Your task to perform on an android device: Open the stopwatch Image 0: 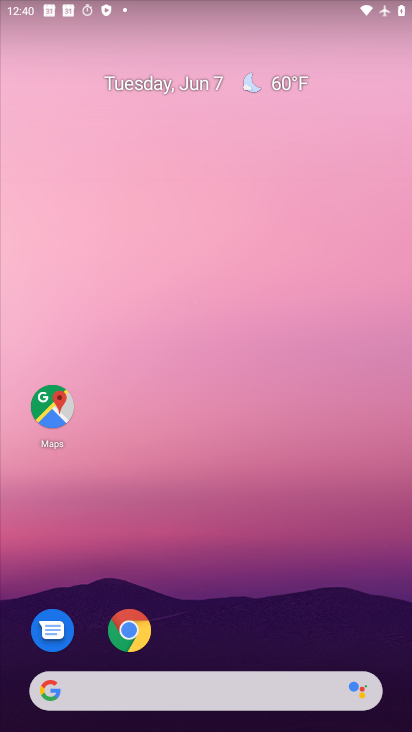
Step 0: drag from (317, 594) to (326, 21)
Your task to perform on an android device: Open the stopwatch Image 1: 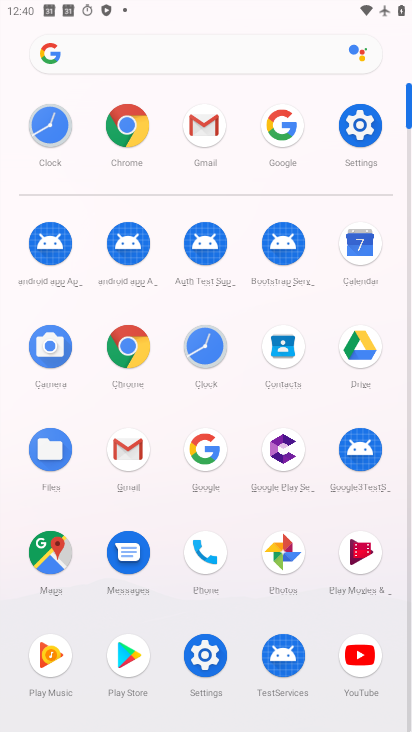
Step 1: click (193, 377)
Your task to perform on an android device: Open the stopwatch Image 2: 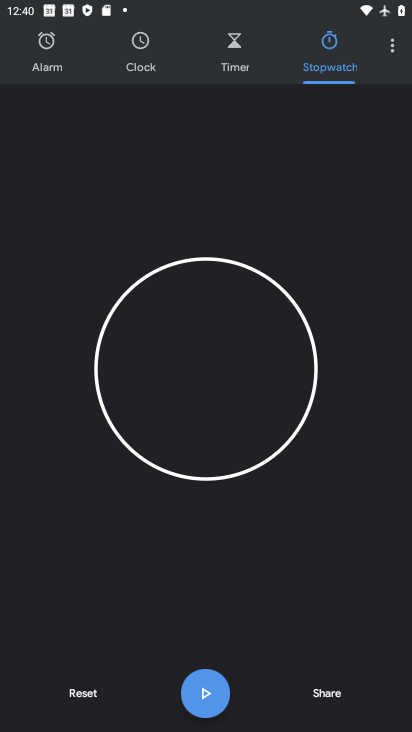
Step 2: task complete